Your task to perform on an android device: turn on javascript in the chrome app Image 0: 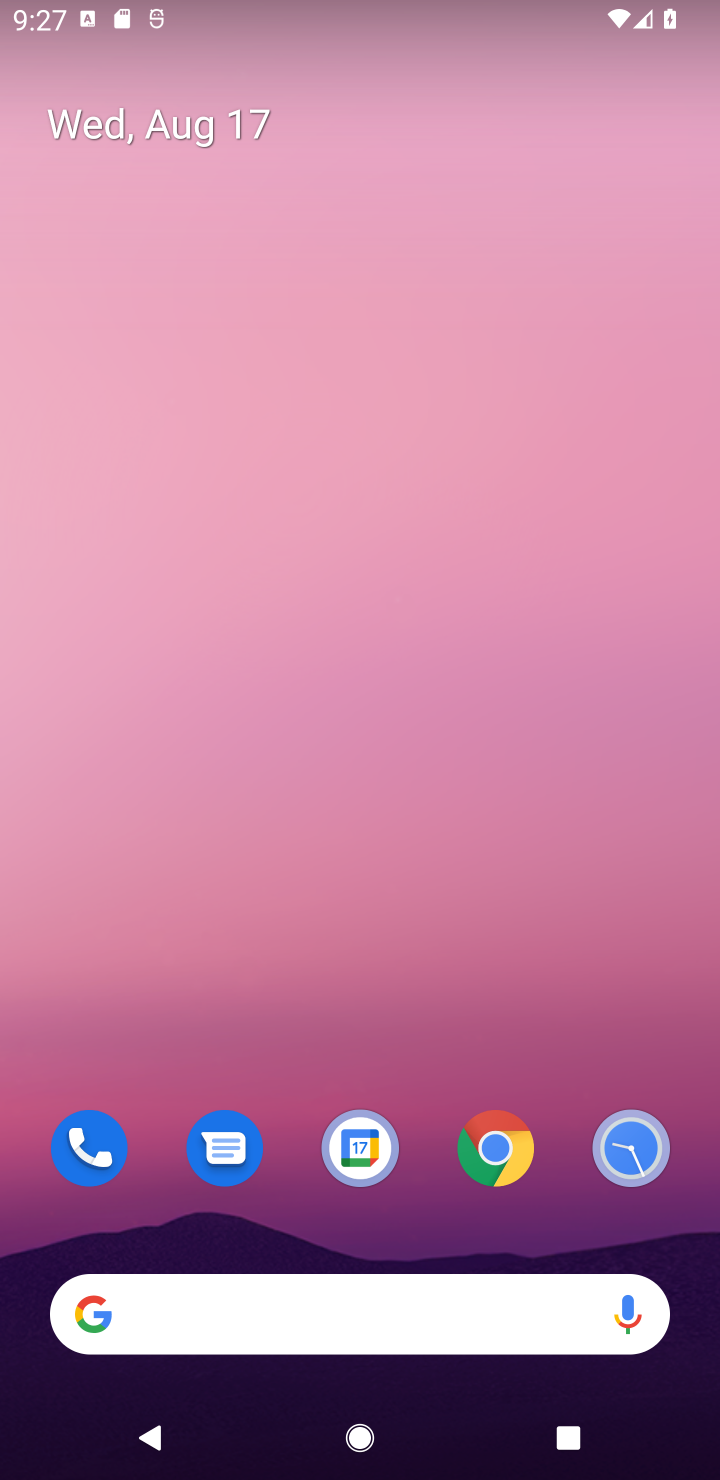
Step 0: click (501, 1155)
Your task to perform on an android device: turn on javascript in the chrome app Image 1: 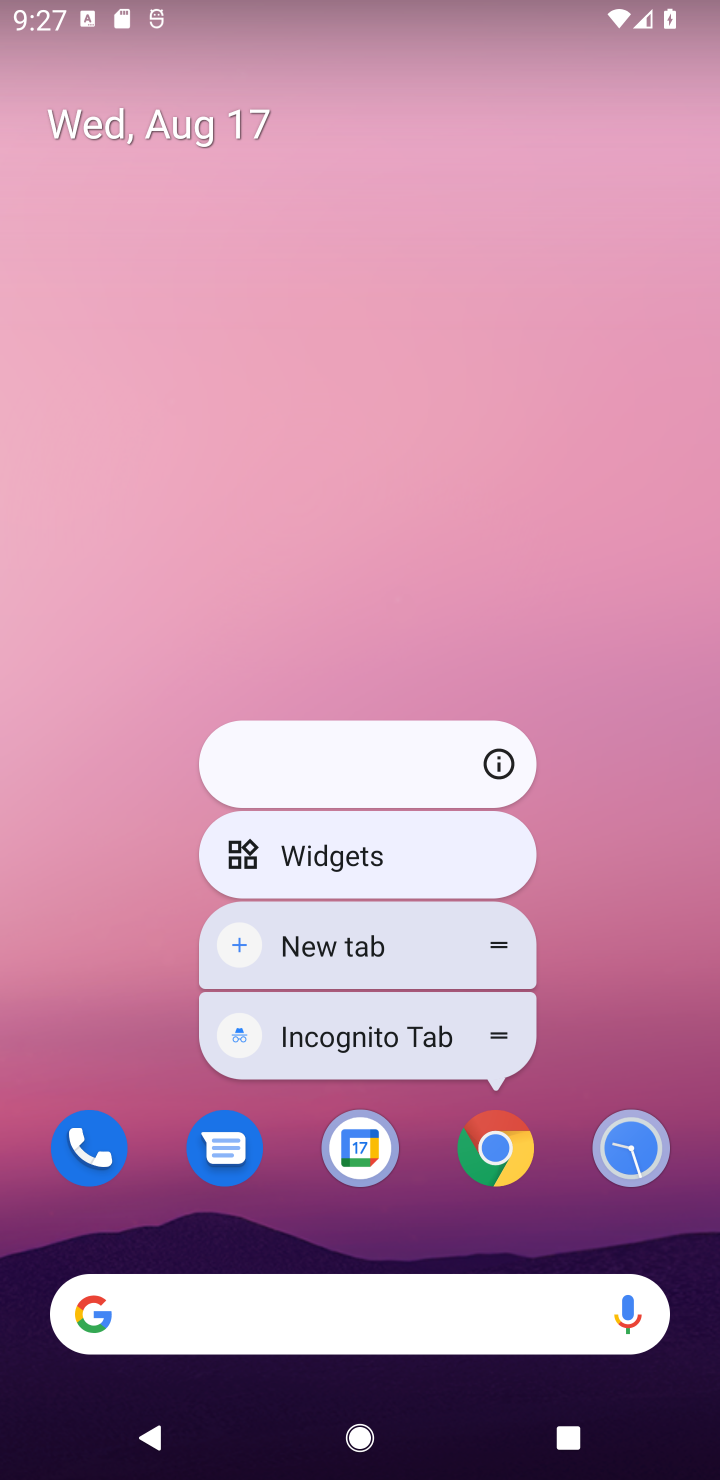
Step 1: click (501, 1155)
Your task to perform on an android device: turn on javascript in the chrome app Image 2: 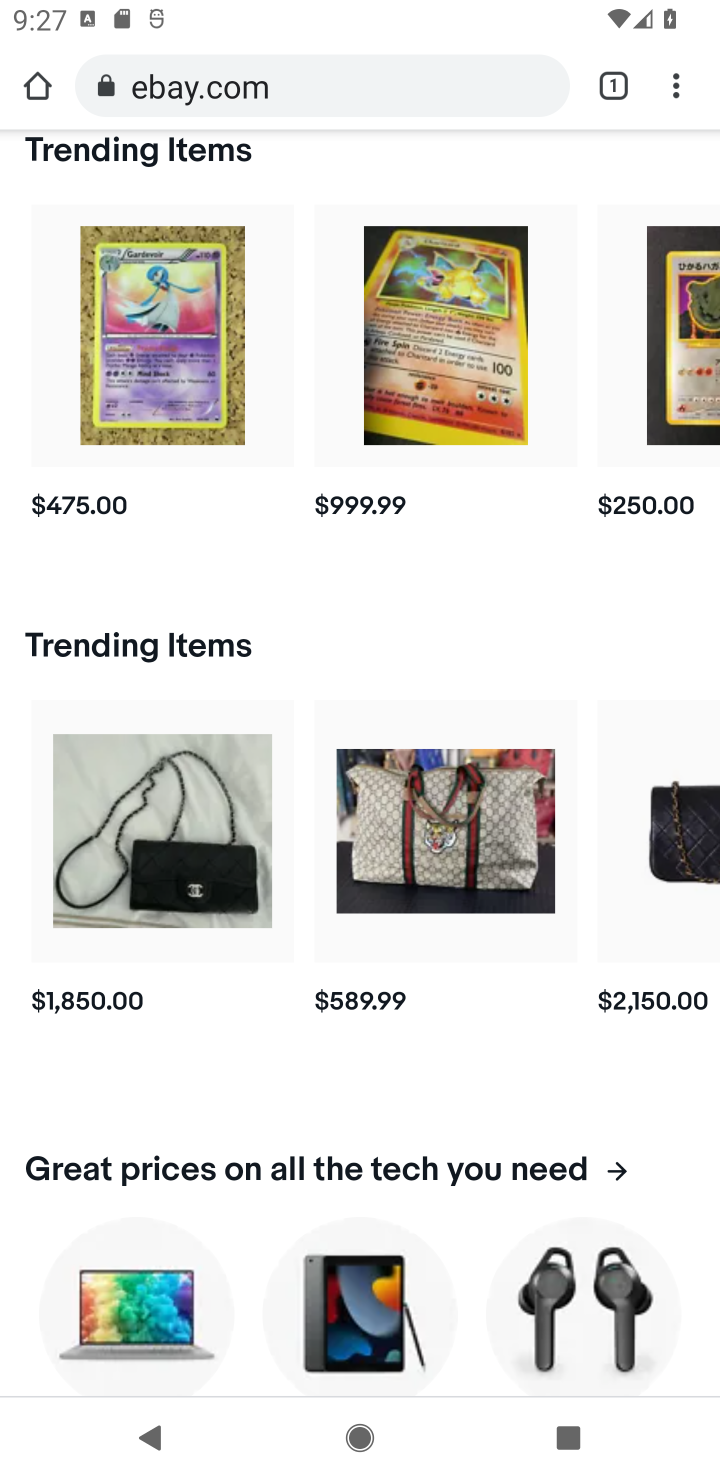
Step 2: click (667, 92)
Your task to perform on an android device: turn on javascript in the chrome app Image 3: 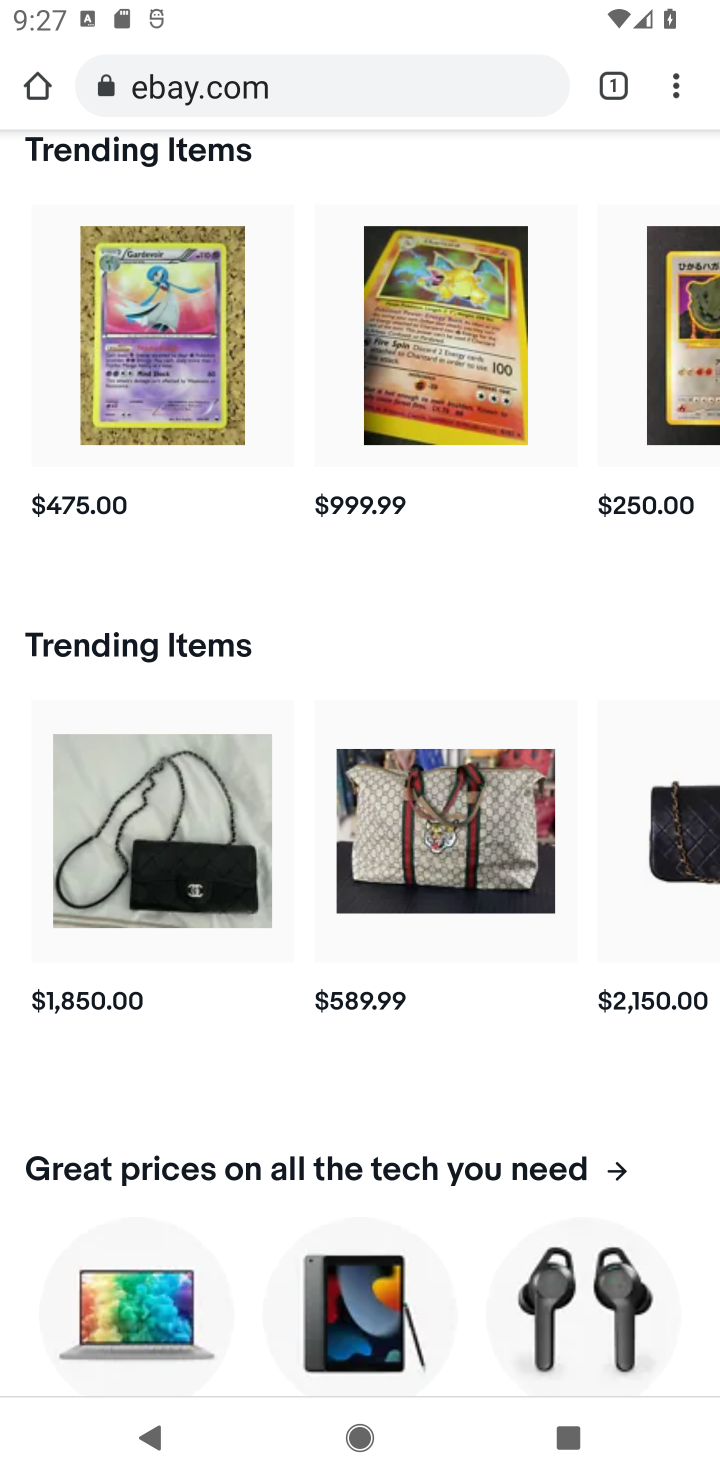
Step 3: click (667, 104)
Your task to perform on an android device: turn on javascript in the chrome app Image 4: 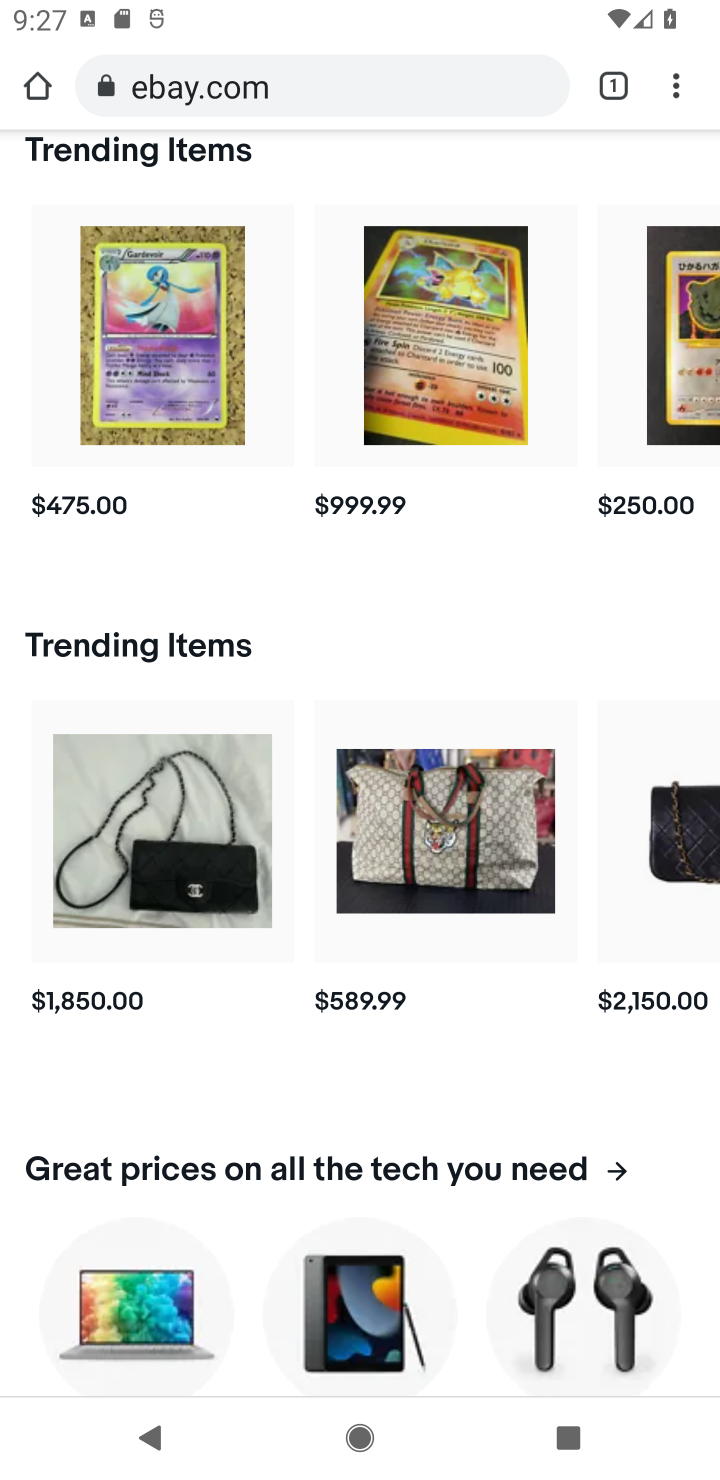
Step 4: click (668, 98)
Your task to perform on an android device: turn on javascript in the chrome app Image 5: 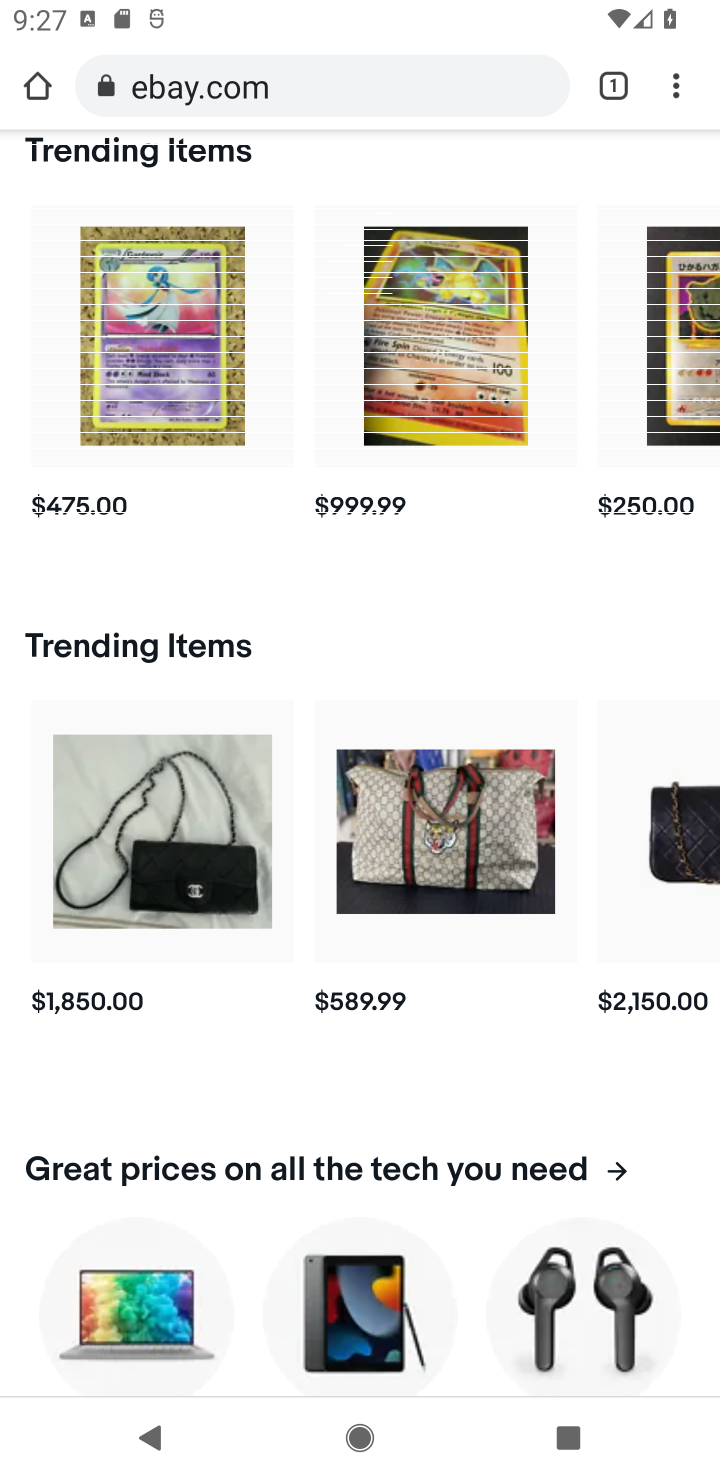
Step 5: task complete